Your task to perform on an android device: What's on my calendar tomorrow? Image 0: 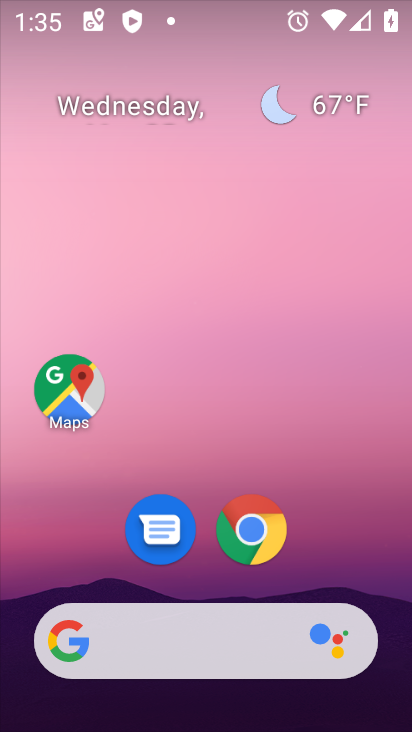
Step 0: drag from (331, 551) to (244, 217)
Your task to perform on an android device: What's on my calendar tomorrow? Image 1: 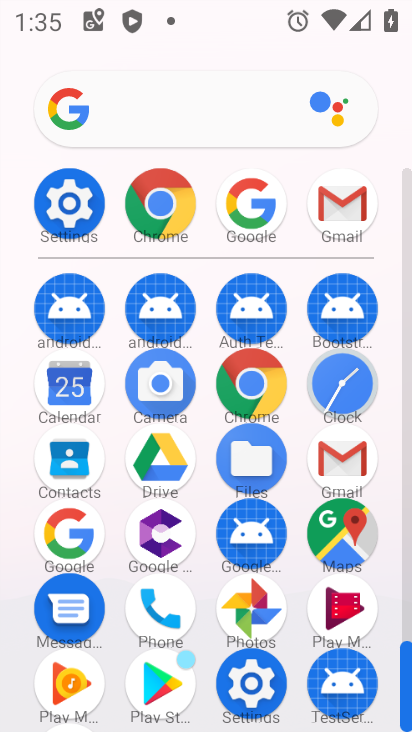
Step 1: click (69, 387)
Your task to perform on an android device: What's on my calendar tomorrow? Image 2: 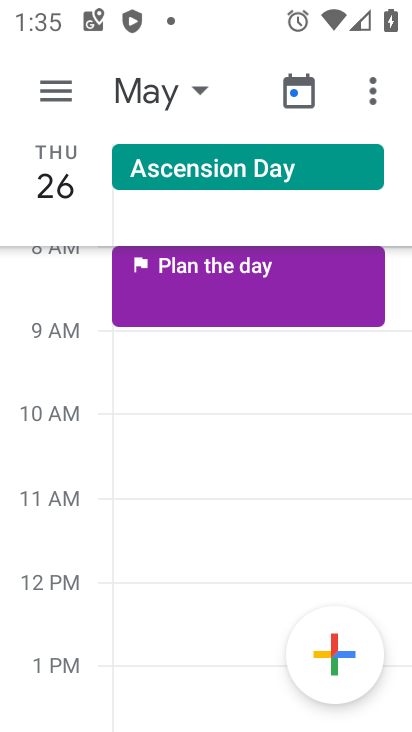
Step 2: click (304, 93)
Your task to perform on an android device: What's on my calendar tomorrow? Image 3: 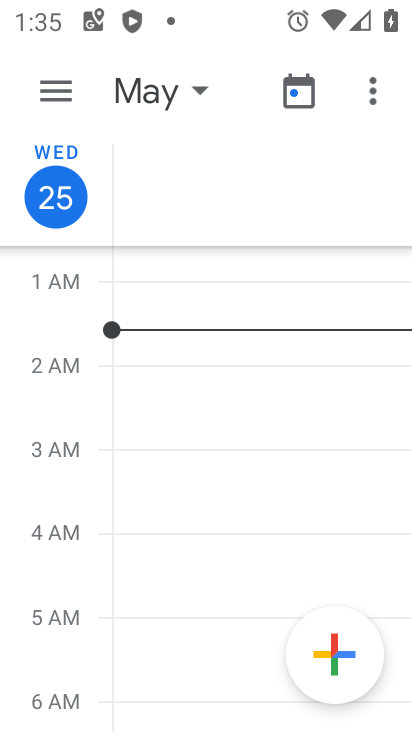
Step 3: click (200, 91)
Your task to perform on an android device: What's on my calendar tomorrow? Image 4: 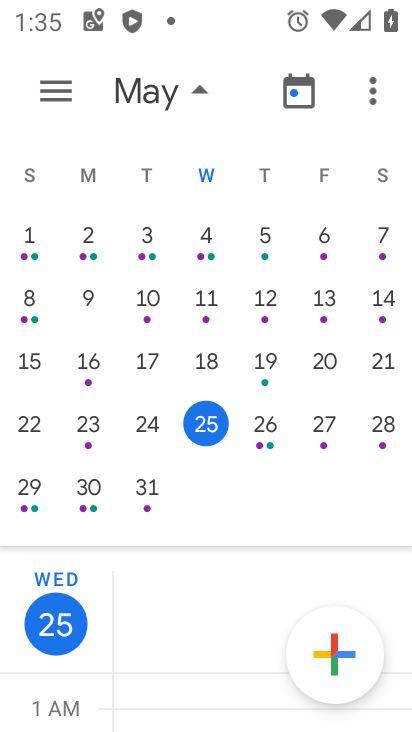
Step 4: click (268, 430)
Your task to perform on an android device: What's on my calendar tomorrow? Image 5: 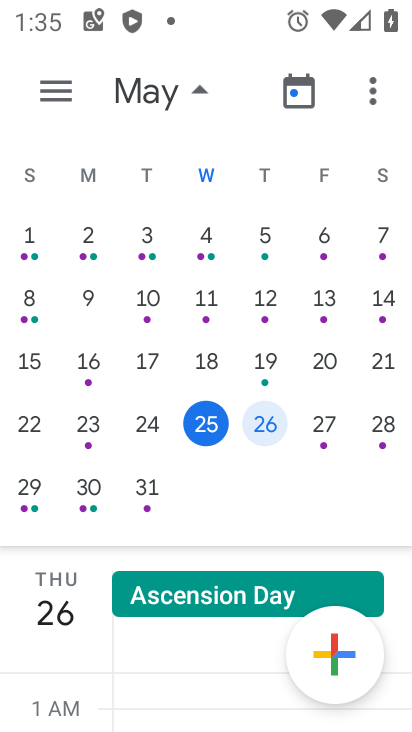
Step 5: click (60, 101)
Your task to perform on an android device: What's on my calendar tomorrow? Image 6: 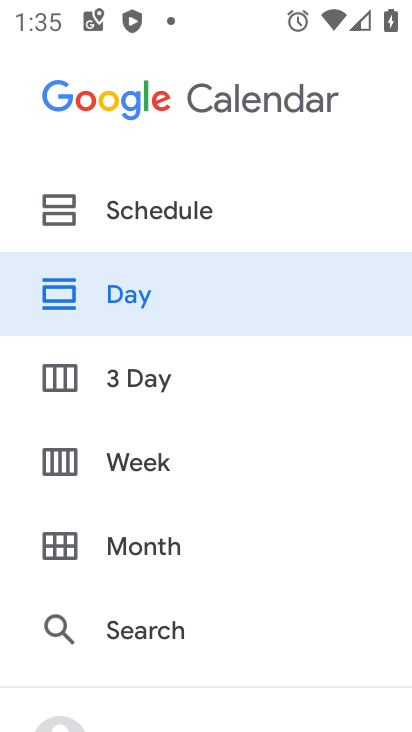
Step 6: click (155, 214)
Your task to perform on an android device: What's on my calendar tomorrow? Image 7: 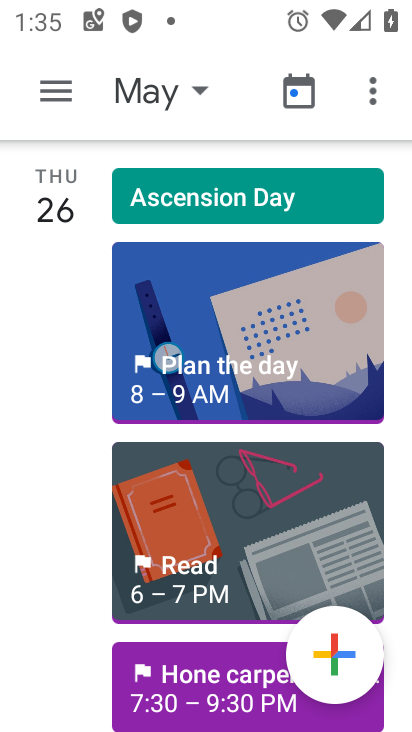
Step 7: task complete